Your task to perform on an android device: show emergency info Image 0: 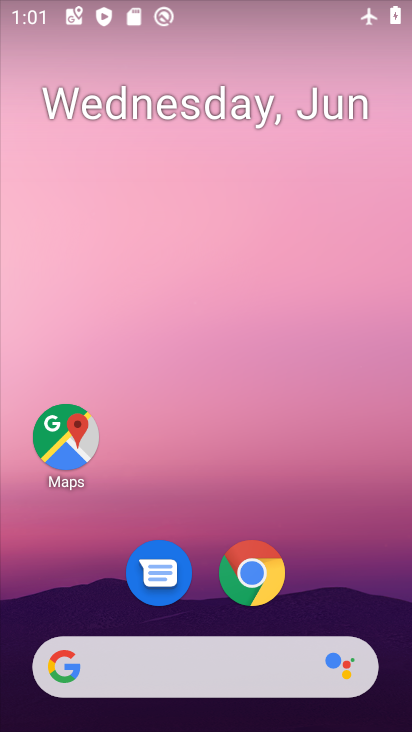
Step 0: drag from (367, 598) to (346, 131)
Your task to perform on an android device: show emergency info Image 1: 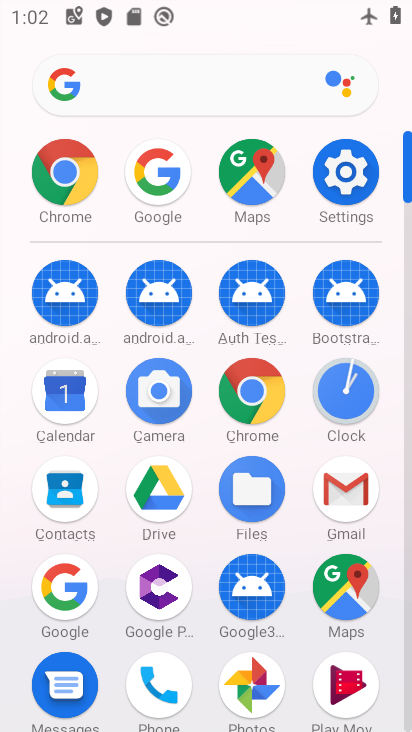
Step 1: click (356, 186)
Your task to perform on an android device: show emergency info Image 2: 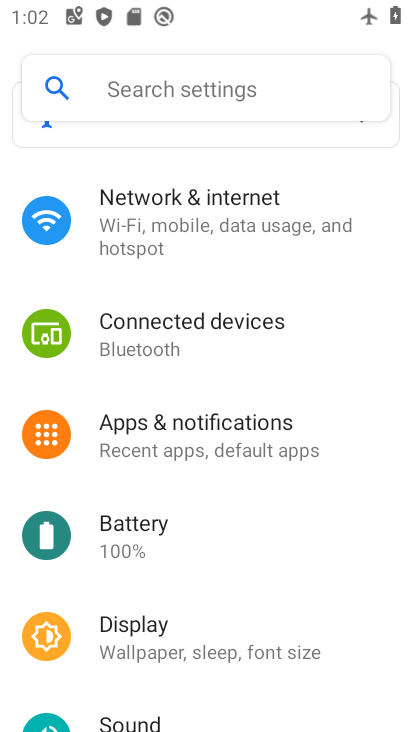
Step 2: drag from (292, 619) to (303, 200)
Your task to perform on an android device: show emergency info Image 3: 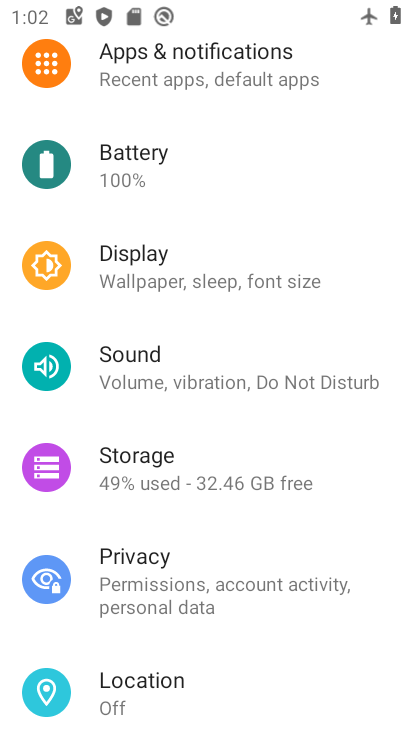
Step 3: drag from (338, 669) to (328, 170)
Your task to perform on an android device: show emergency info Image 4: 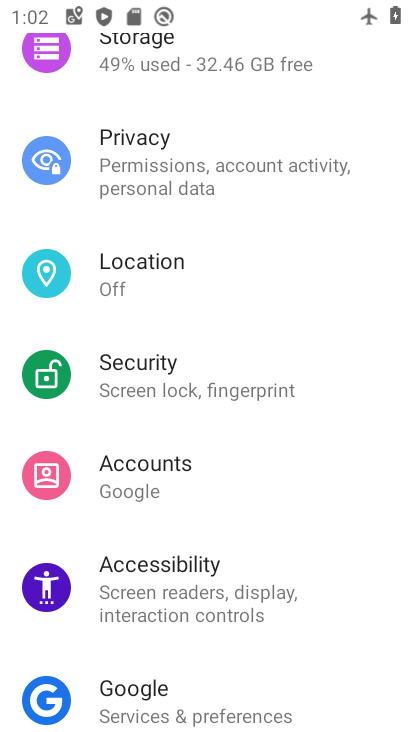
Step 4: drag from (315, 681) to (301, 142)
Your task to perform on an android device: show emergency info Image 5: 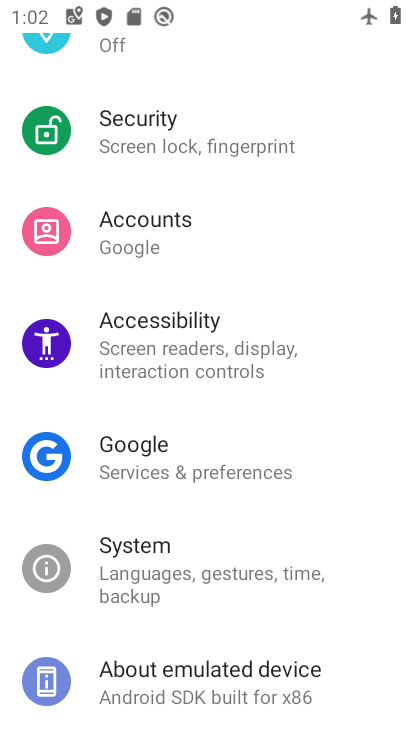
Step 5: click (267, 695)
Your task to perform on an android device: show emergency info Image 6: 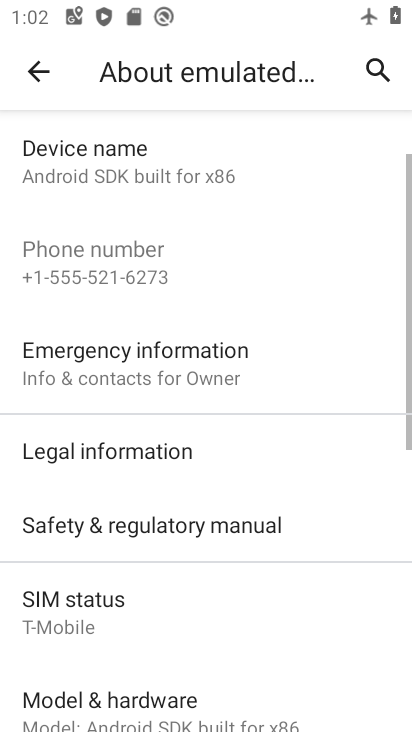
Step 6: click (229, 351)
Your task to perform on an android device: show emergency info Image 7: 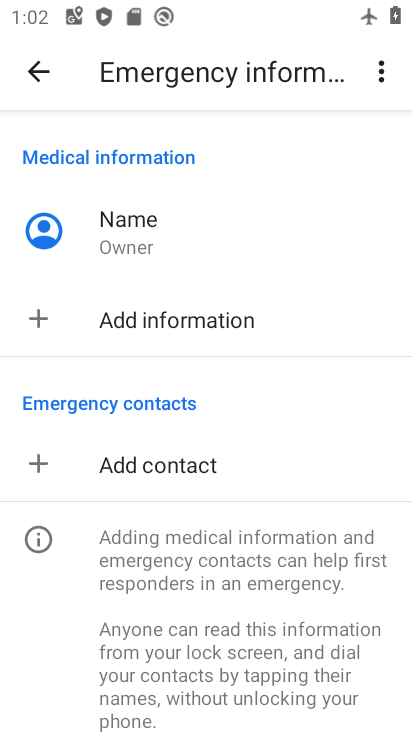
Step 7: task complete